Your task to perform on an android device: set default search engine in the chrome app Image 0: 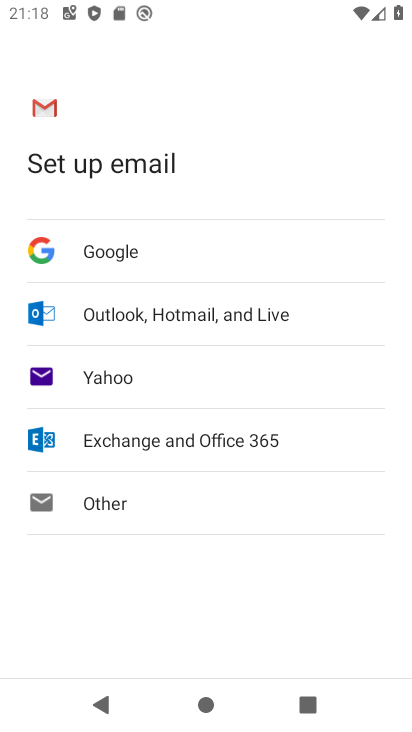
Step 0: drag from (221, 534) to (351, 59)
Your task to perform on an android device: set default search engine in the chrome app Image 1: 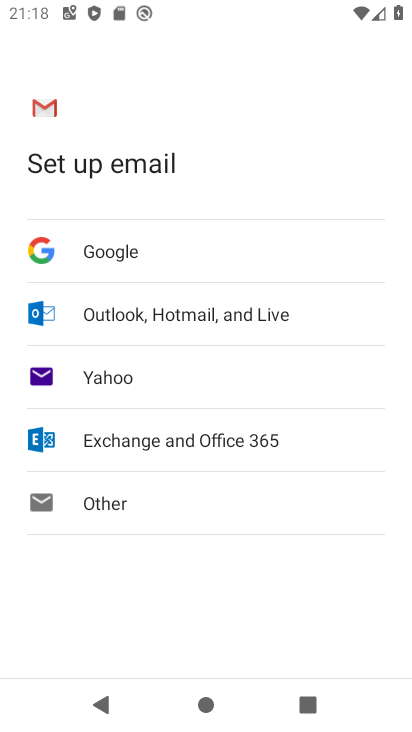
Step 1: click (253, 169)
Your task to perform on an android device: set default search engine in the chrome app Image 2: 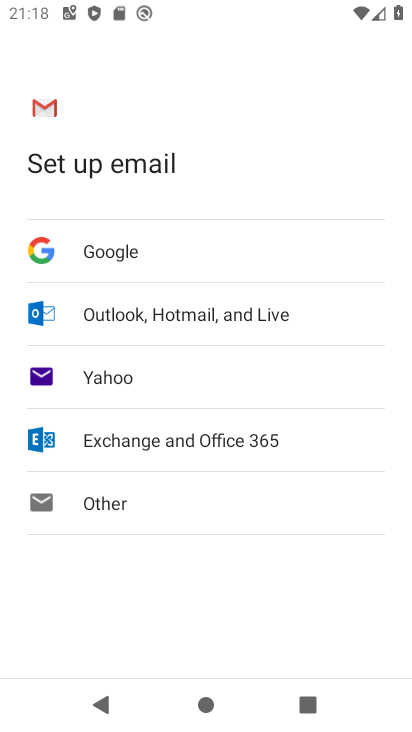
Step 2: press home button
Your task to perform on an android device: set default search engine in the chrome app Image 3: 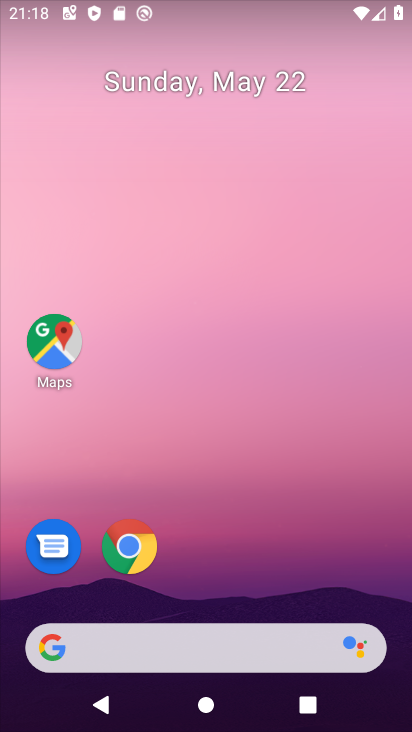
Step 3: drag from (208, 563) to (332, 73)
Your task to perform on an android device: set default search engine in the chrome app Image 4: 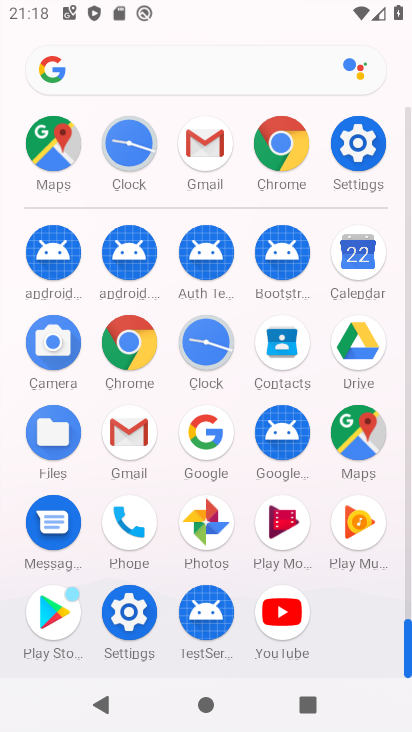
Step 4: click (276, 139)
Your task to perform on an android device: set default search engine in the chrome app Image 5: 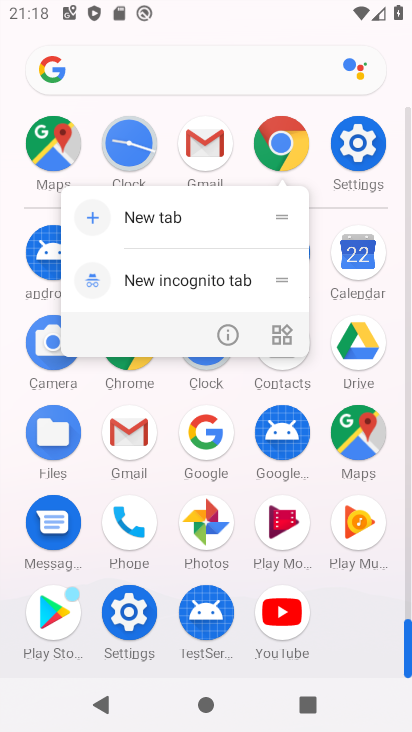
Step 5: click (239, 341)
Your task to perform on an android device: set default search engine in the chrome app Image 6: 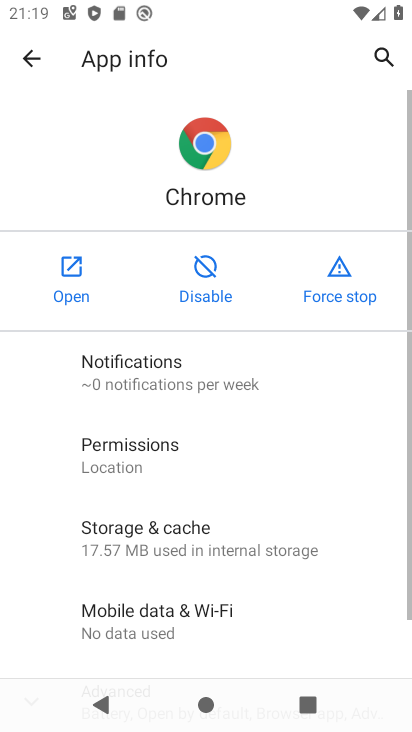
Step 6: click (79, 280)
Your task to perform on an android device: set default search engine in the chrome app Image 7: 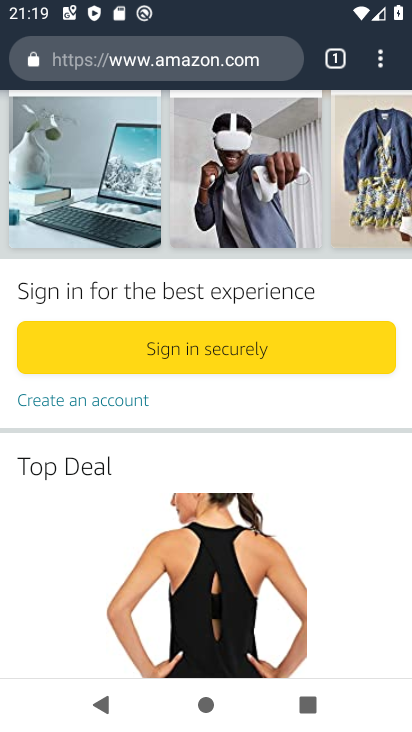
Step 7: click (377, 56)
Your task to perform on an android device: set default search engine in the chrome app Image 8: 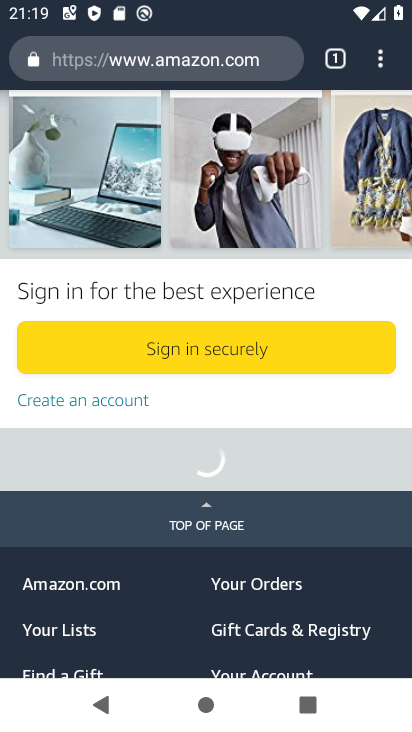
Step 8: click (382, 47)
Your task to perform on an android device: set default search engine in the chrome app Image 9: 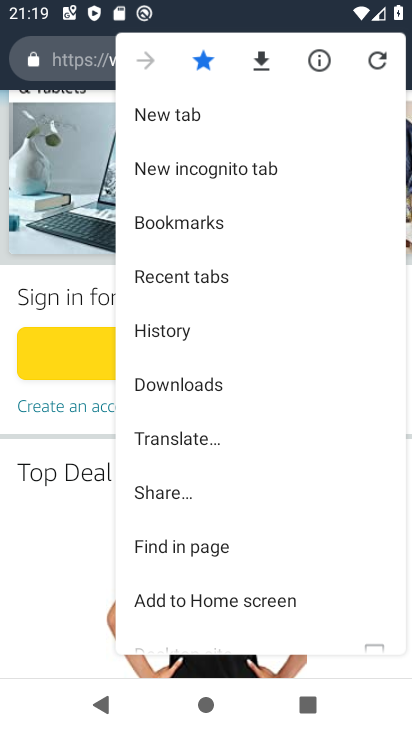
Step 9: drag from (244, 526) to (256, 201)
Your task to perform on an android device: set default search engine in the chrome app Image 10: 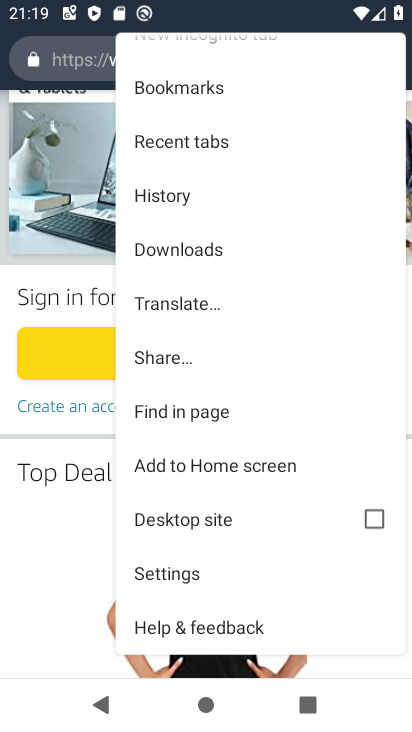
Step 10: click (196, 561)
Your task to perform on an android device: set default search engine in the chrome app Image 11: 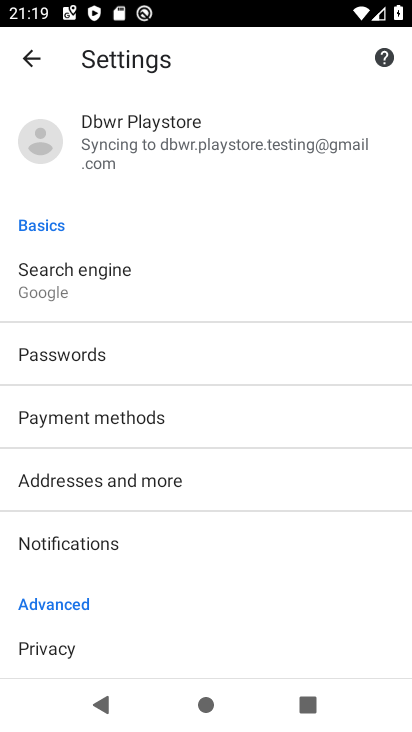
Step 11: click (130, 299)
Your task to perform on an android device: set default search engine in the chrome app Image 12: 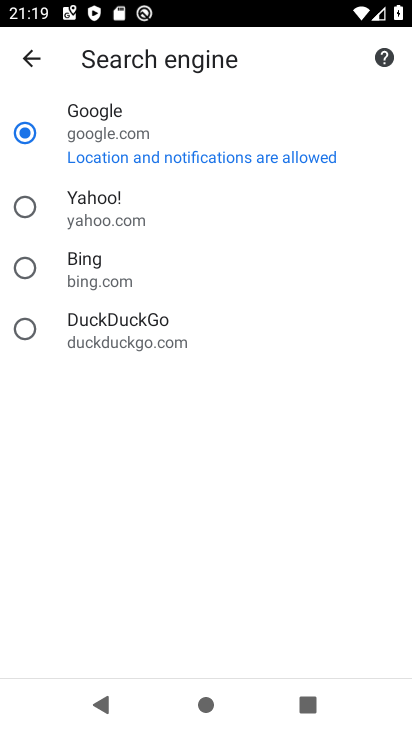
Step 12: task complete